Your task to perform on an android device: turn on airplane mode Image 0: 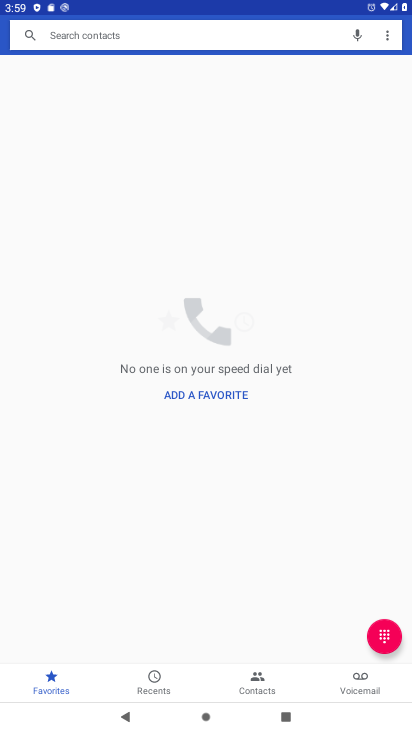
Step 0: press home button
Your task to perform on an android device: turn on airplane mode Image 1: 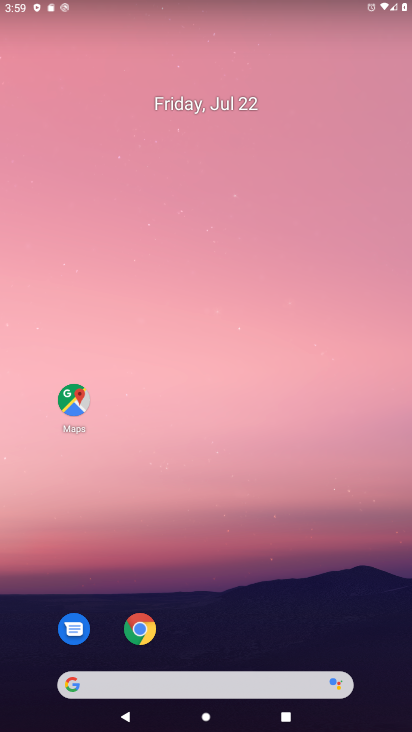
Step 1: drag from (272, 587) to (235, 89)
Your task to perform on an android device: turn on airplane mode Image 2: 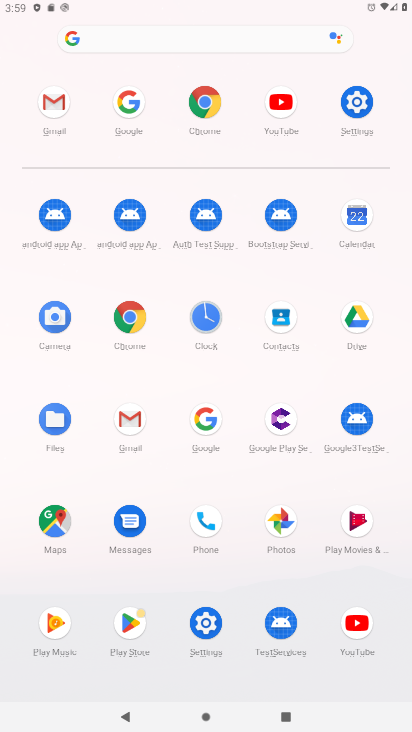
Step 2: click (360, 102)
Your task to perform on an android device: turn on airplane mode Image 3: 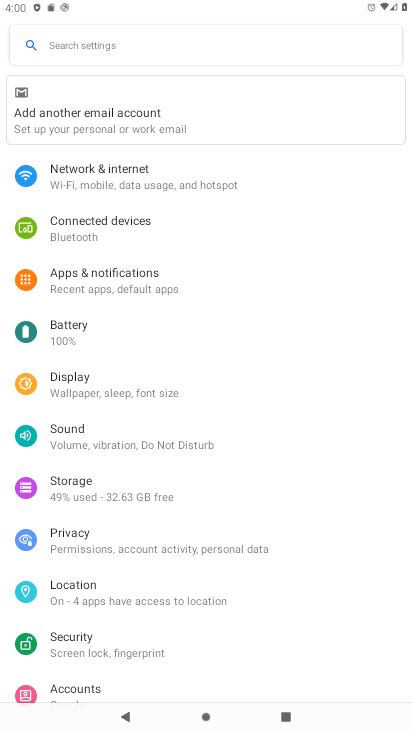
Step 3: click (192, 171)
Your task to perform on an android device: turn on airplane mode Image 4: 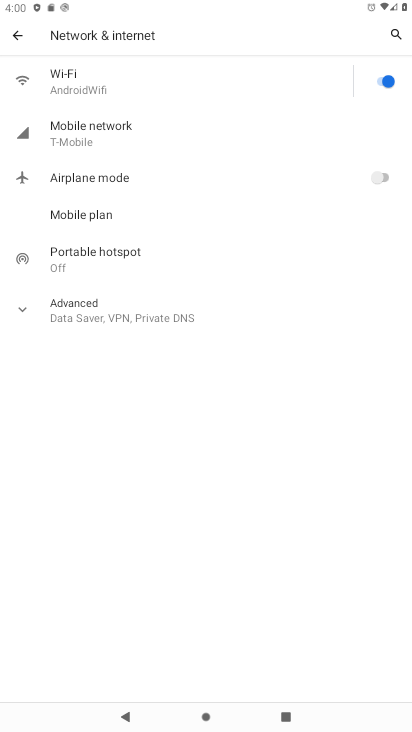
Step 4: click (377, 164)
Your task to perform on an android device: turn on airplane mode Image 5: 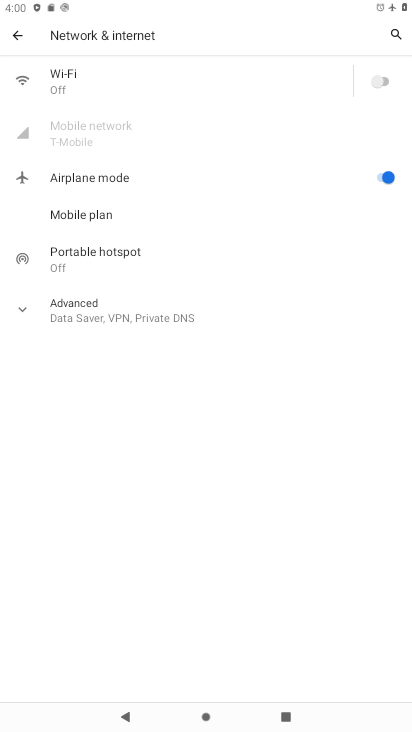
Step 5: task complete